Your task to perform on an android device: Go to Android settings Image 0: 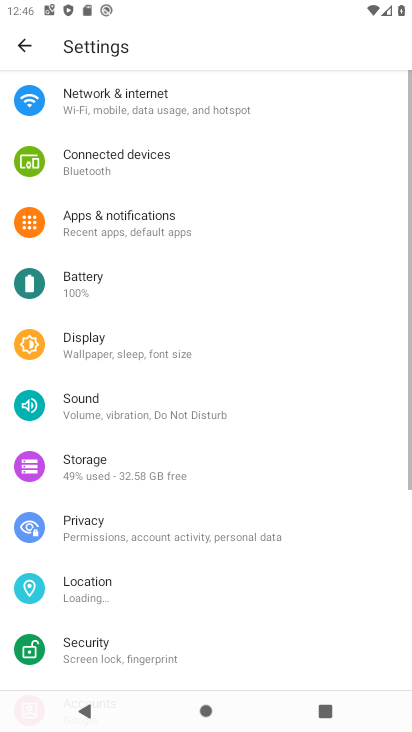
Step 0: drag from (260, 616) to (230, 158)
Your task to perform on an android device: Go to Android settings Image 1: 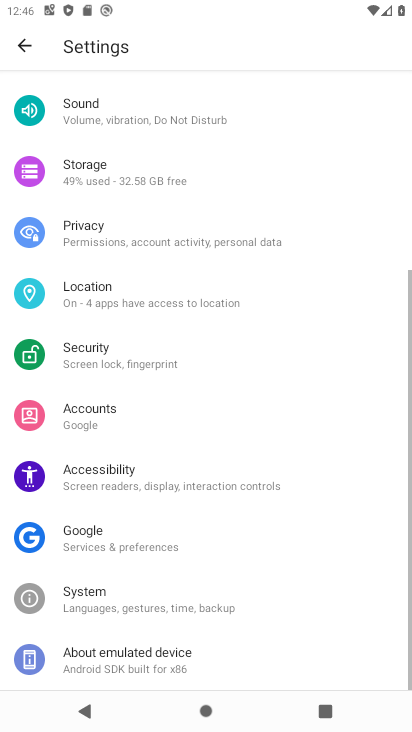
Step 1: task complete